Your task to perform on an android device: find photos in the google photos app Image 0: 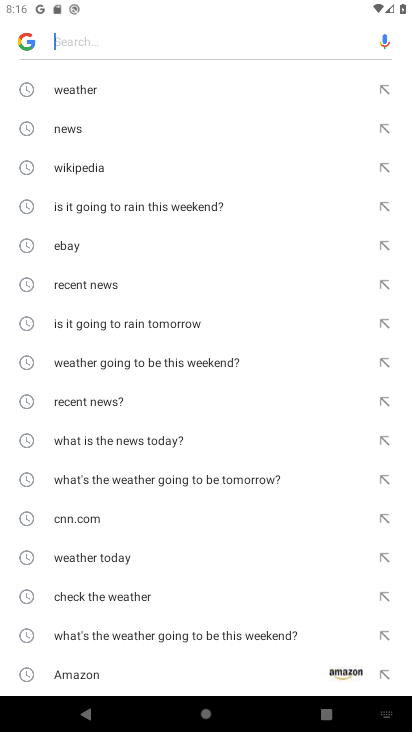
Step 0: press home button
Your task to perform on an android device: find photos in the google photos app Image 1: 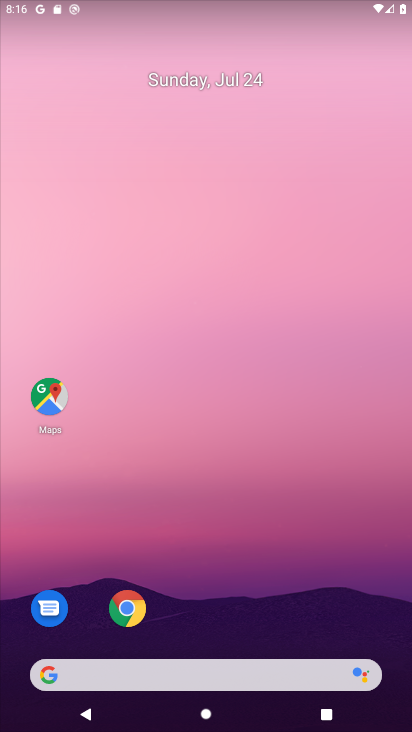
Step 1: drag from (206, 626) to (221, 152)
Your task to perform on an android device: find photos in the google photos app Image 2: 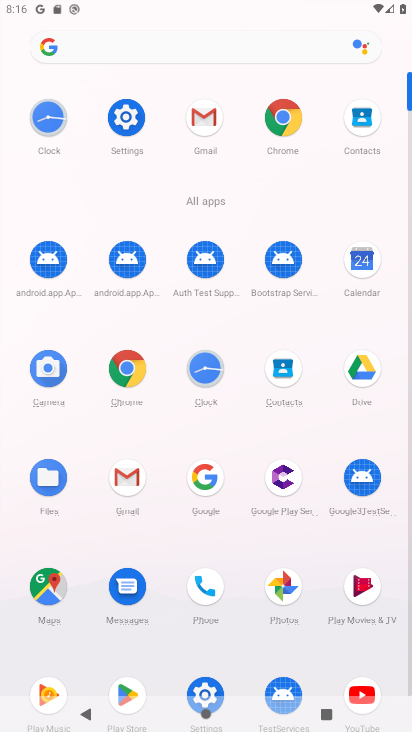
Step 2: click (301, 593)
Your task to perform on an android device: find photos in the google photos app Image 3: 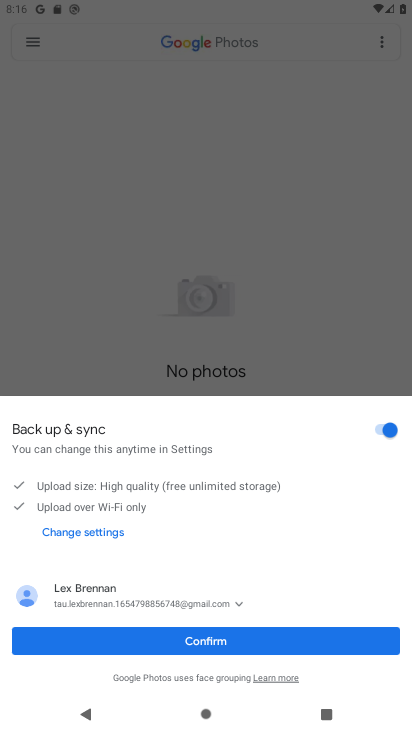
Step 3: click (328, 652)
Your task to perform on an android device: find photos in the google photos app Image 4: 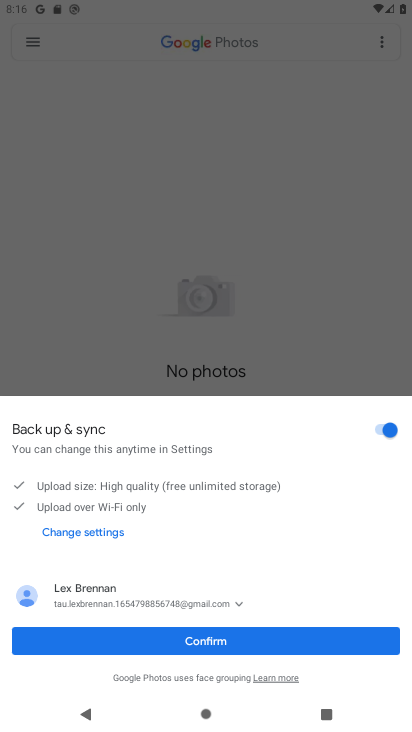
Step 4: click (328, 652)
Your task to perform on an android device: find photos in the google photos app Image 5: 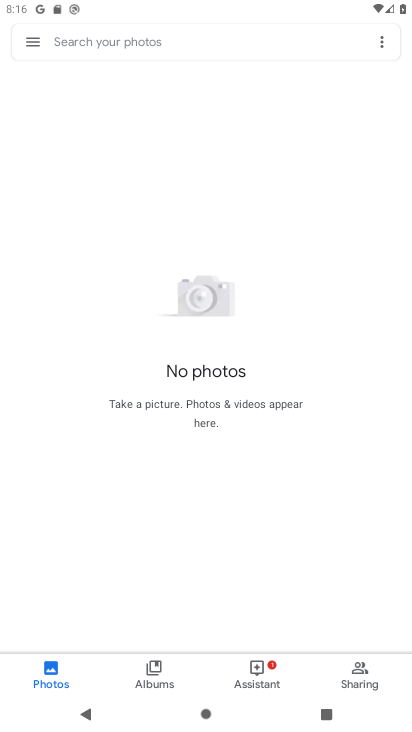
Step 5: task complete